Your task to perform on an android device: Go to settings Image 0: 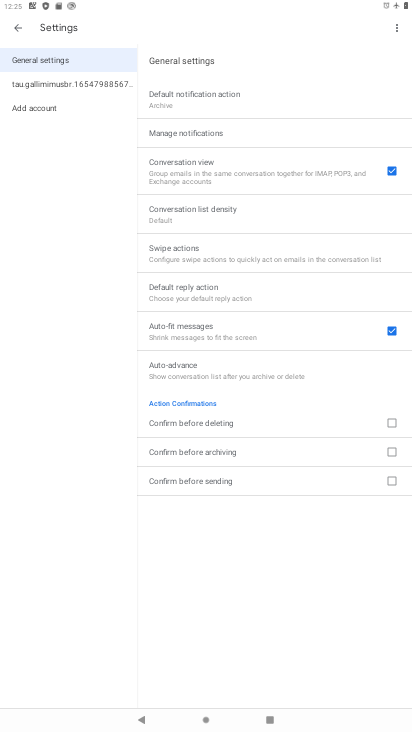
Step 0: press home button
Your task to perform on an android device: Go to settings Image 1: 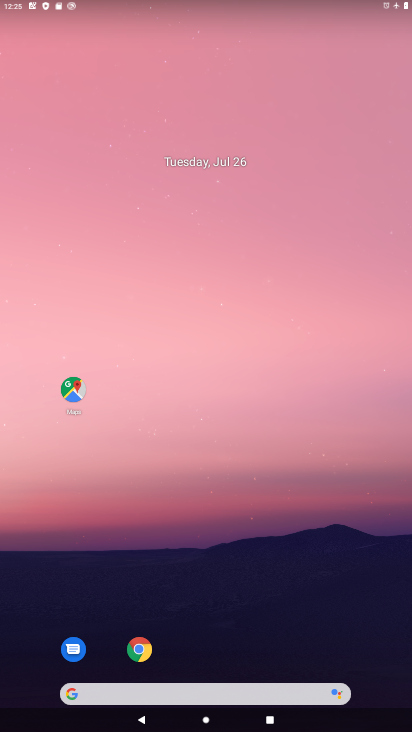
Step 1: drag from (232, 708) to (230, 262)
Your task to perform on an android device: Go to settings Image 2: 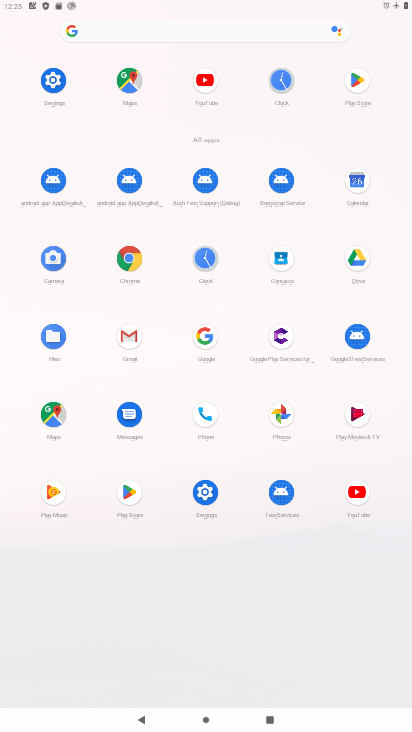
Step 2: click (204, 483)
Your task to perform on an android device: Go to settings Image 3: 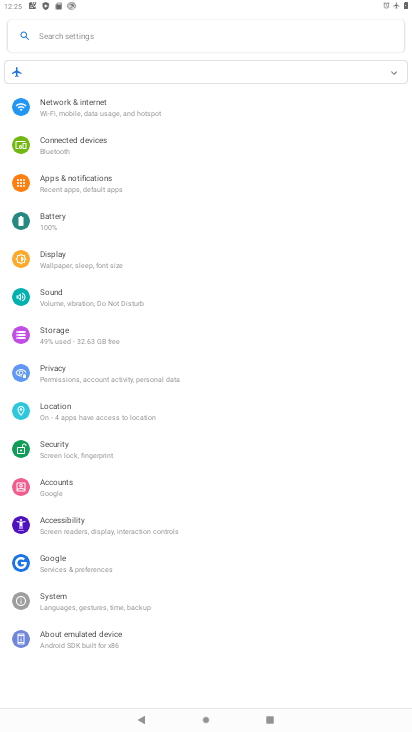
Step 3: task complete